Your task to perform on an android device: open app "Expedia: Hotels, Flights & Car" (install if not already installed) Image 0: 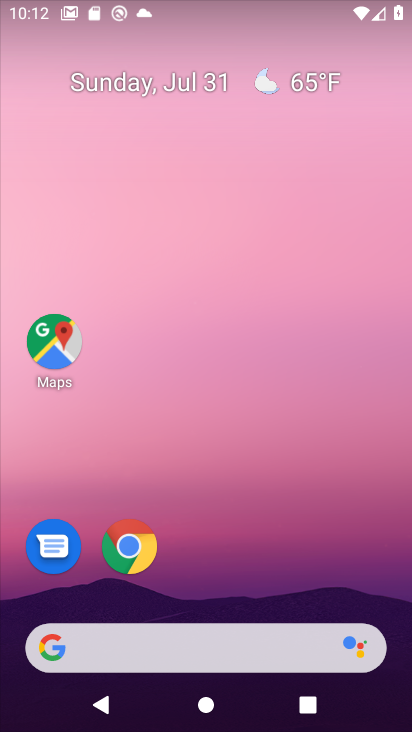
Step 0: drag from (269, 456) to (305, 6)
Your task to perform on an android device: open app "Expedia: Hotels, Flights & Car" (install if not already installed) Image 1: 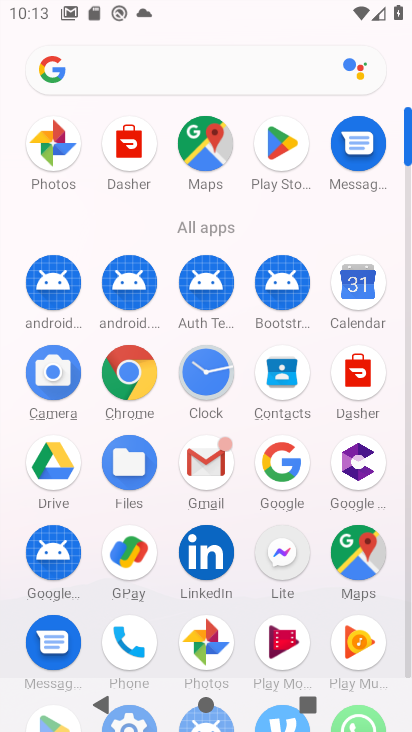
Step 1: click (277, 158)
Your task to perform on an android device: open app "Expedia: Hotels, Flights & Car" (install if not already installed) Image 2: 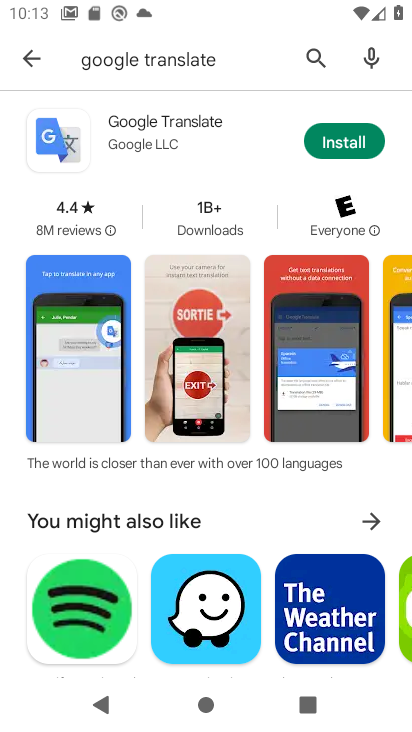
Step 2: click (303, 52)
Your task to perform on an android device: open app "Expedia: Hotels, Flights & Car" (install if not already installed) Image 3: 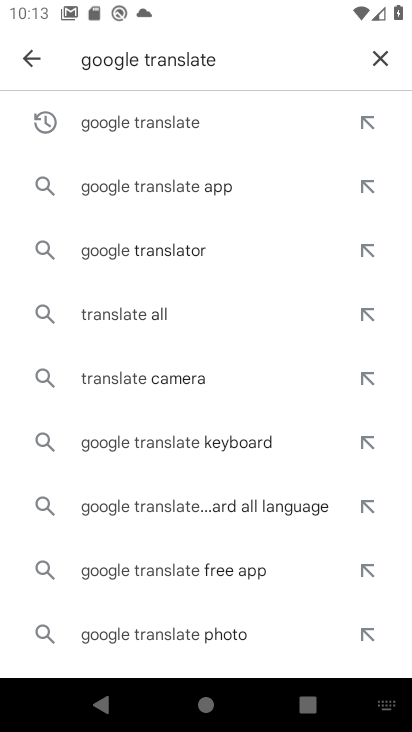
Step 3: click (372, 51)
Your task to perform on an android device: open app "Expedia: Hotels, Flights & Car" (install if not already installed) Image 4: 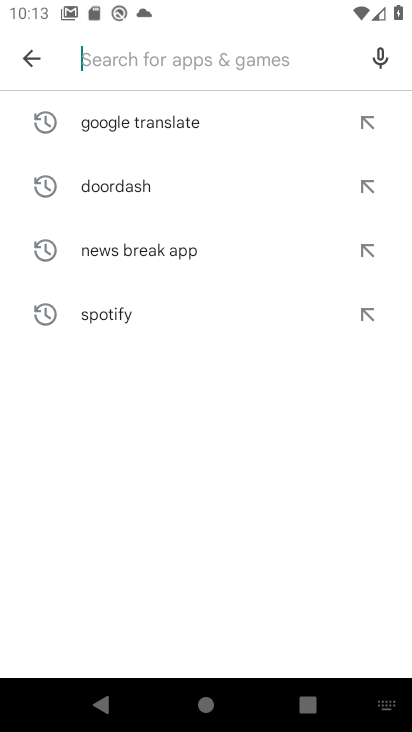
Step 4: type "expedia"
Your task to perform on an android device: open app "Expedia: Hotels, Flights & Car" (install if not already installed) Image 5: 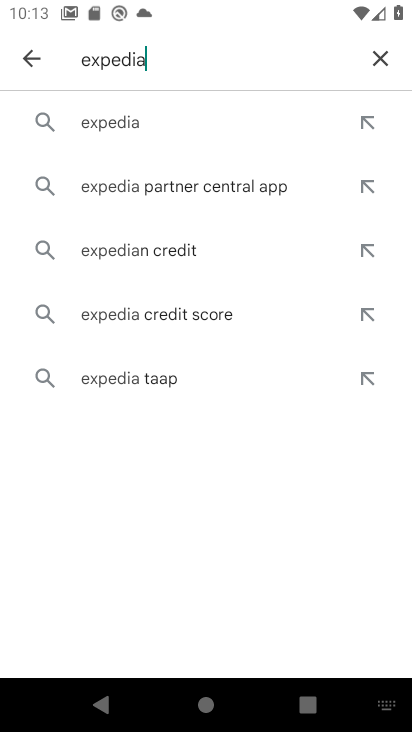
Step 5: click (168, 106)
Your task to perform on an android device: open app "Expedia: Hotels, Flights & Car" (install if not already installed) Image 6: 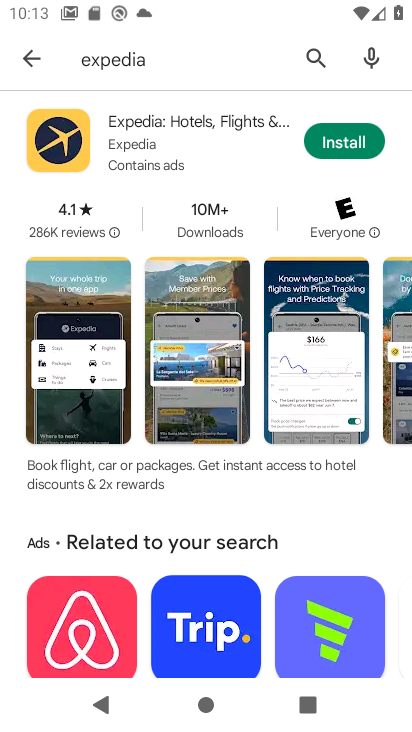
Step 6: click (362, 139)
Your task to perform on an android device: open app "Expedia: Hotels, Flights & Car" (install if not already installed) Image 7: 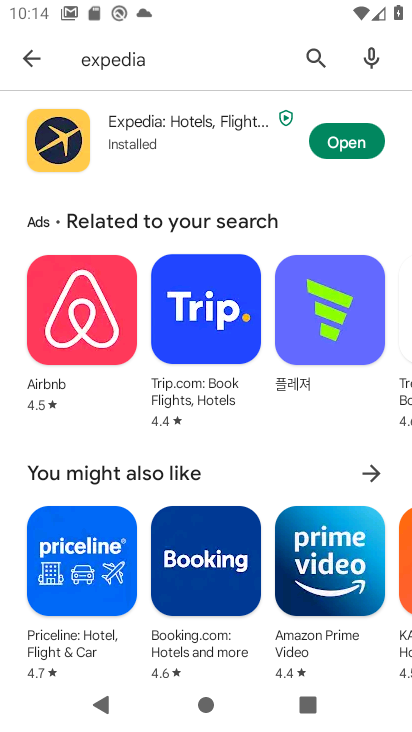
Step 7: click (348, 138)
Your task to perform on an android device: open app "Expedia: Hotels, Flights & Car" (install if not already installed) Image 8: 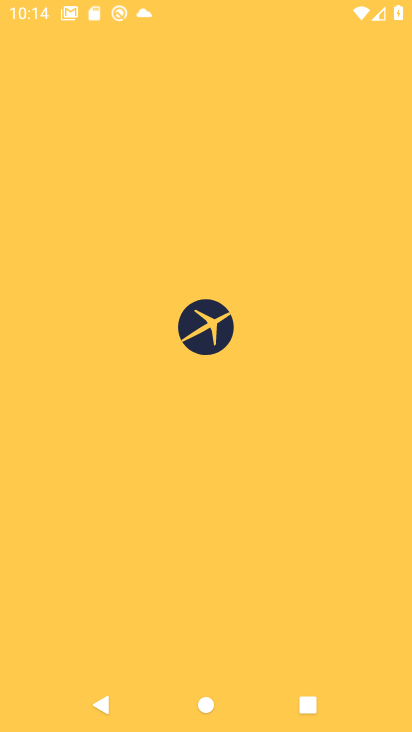
Step 8: task complete